Your task to perform on an android device: Open the phone app and click the voicemail tab. Image 0: 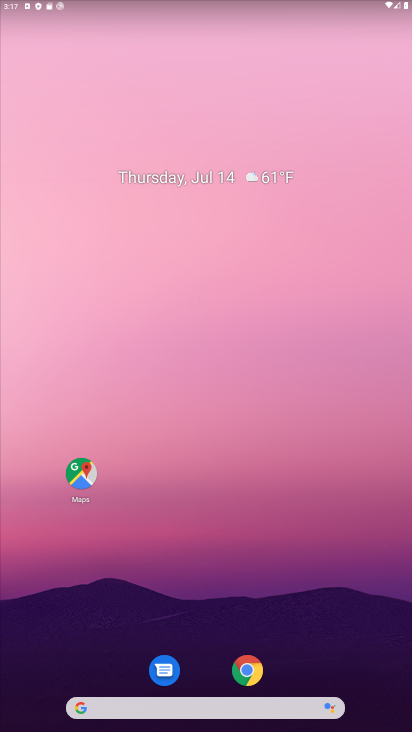
Step 0: drag from (219, 643) to (173, 31)
Your task to perform on an android device: Open the phone app and click the voicemail tab. Image 1: 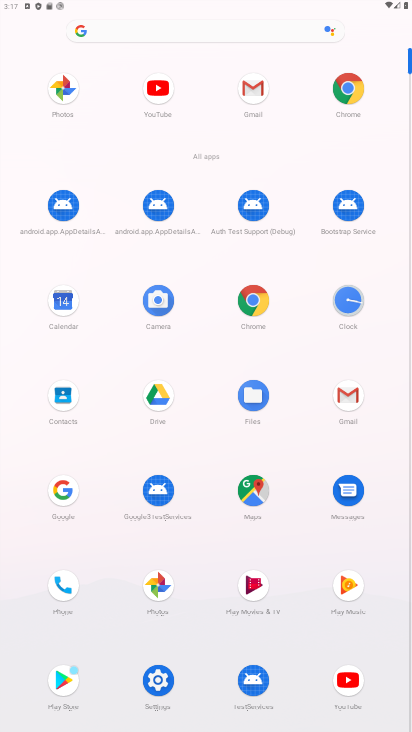
Step 1: click (56, 588)
Your task to perform on an android device: Open the phone app and click the voicemail tab. Image 2: 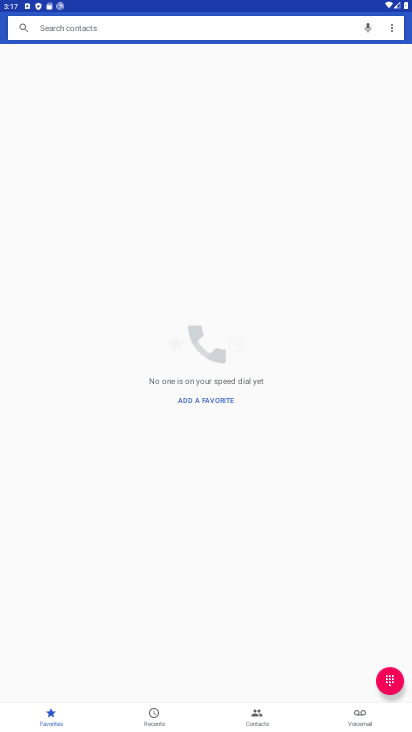
Step 2: click (357, 714)
Your task to perform on an android device: Open the phone app and click the voicemail tab. Image 3: 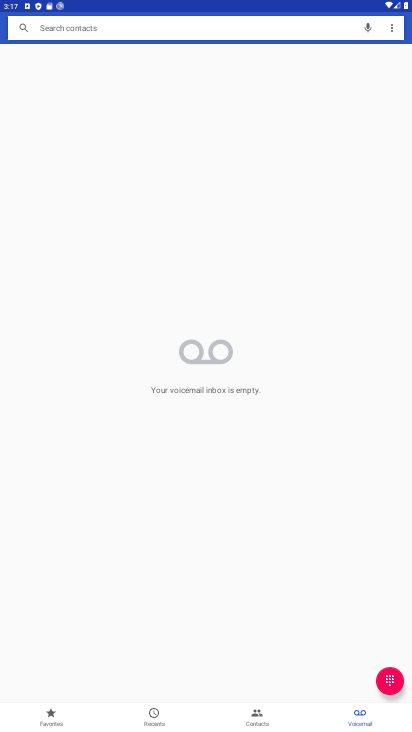
Step 3: task complete